Your task to perform on an android device: What's on my calendar today? Image 0: 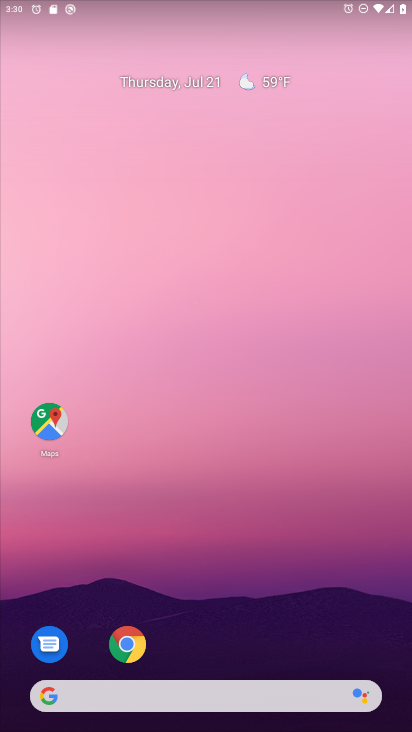
Step 0: drag from (26, 397) to (156, 100)
Your task to perform on an android device: What's on my calendar today? Image 1: 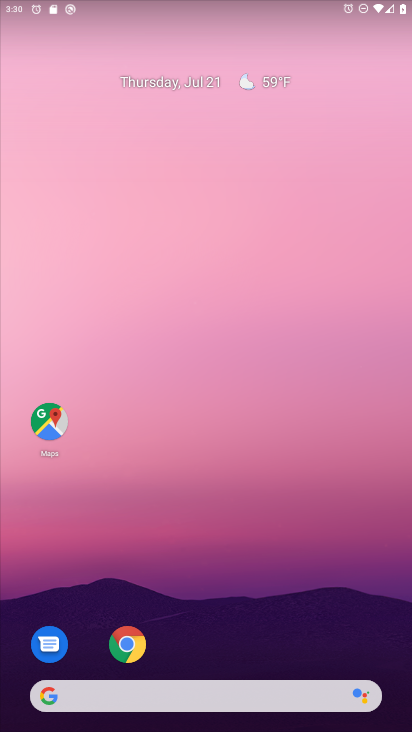
Step 1: drag from (38, 585) to (224, 139)
Your task to perform on an android device: What's on my calendar today? Image 2: 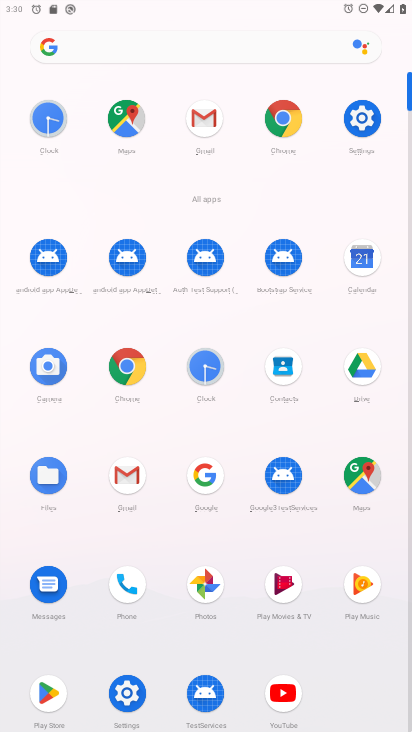
Step 2: click (351, 261)
Your task to perform on an android device: What's on my calendar today? Image 3: 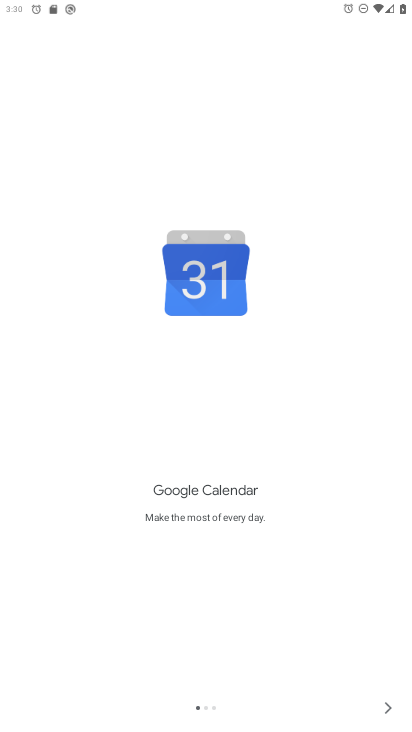
Step 3: click (374, 714)
Your task to perform on an android device: What's on my calendar today? Image 4: 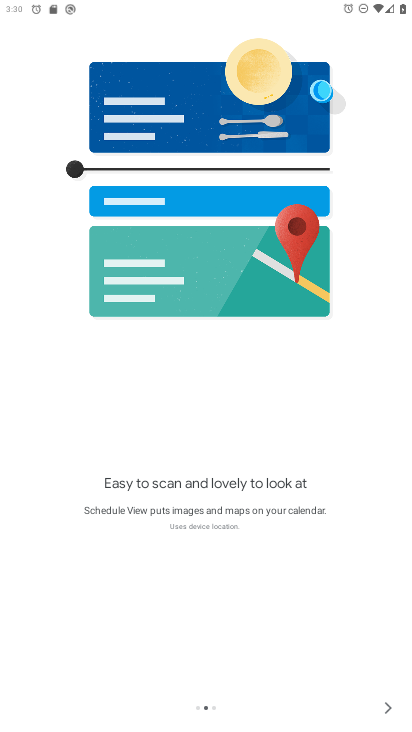
Step 4: click (374, 714)
Your task to perform on an android device: What's on my calendar today? Image 5: 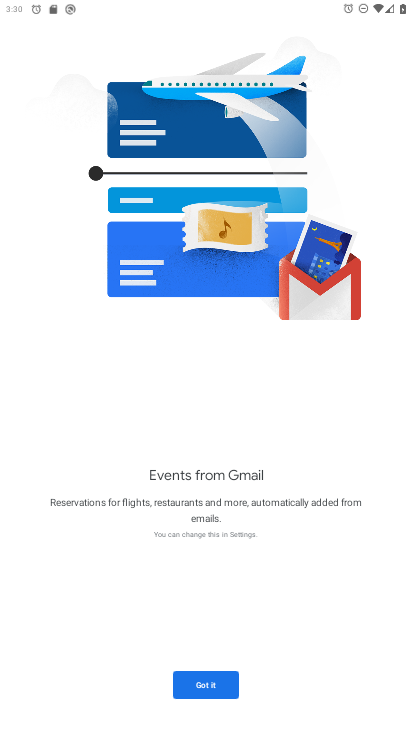
Step 5: click (210, 692)
Your task to perform on an android device: What's on my calendar today? Image 6: 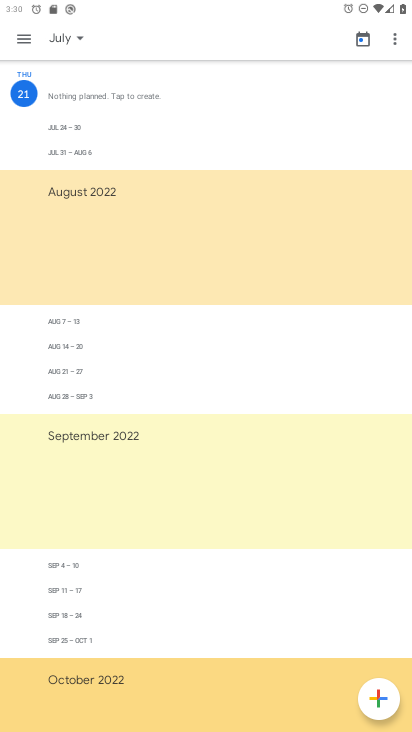
Step 6: click (60, 34)
Your task to perform on an android device: What's on my calendar today? Image 7: 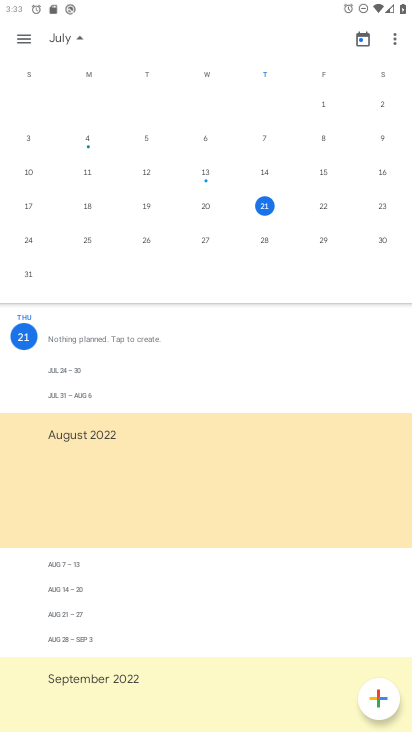
Step 7: task complete